Your task to perform on an android device: search for starred emails in the gmail app Image 0: 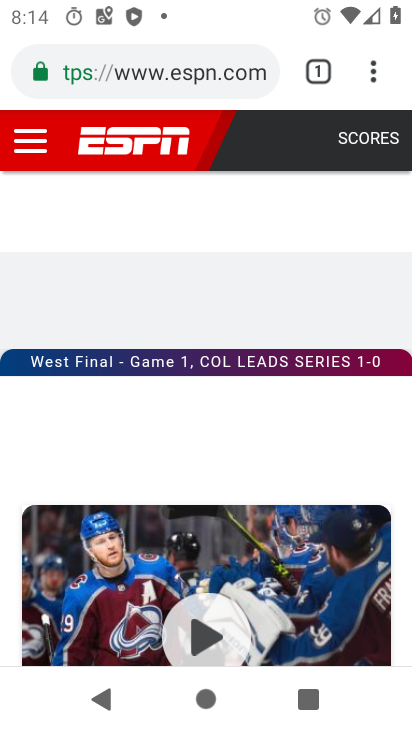
Step 0: press home button
Your task to perform on an android device: search for starred emails in the gmail app Image 1: 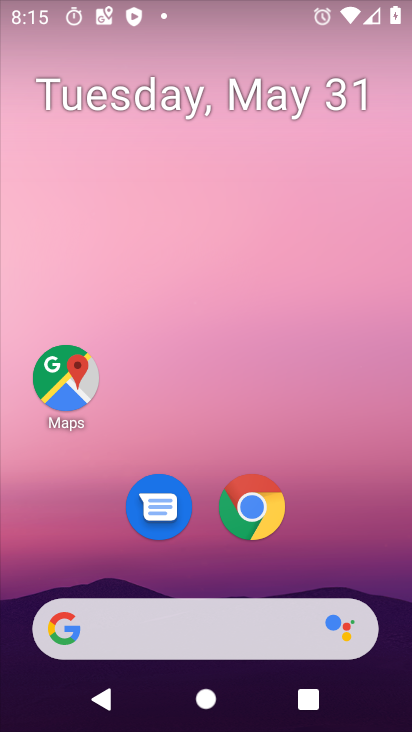
Step 1: drag from (354, 572) to (373, 12)
Your task to perform on an android device: search for starred emails in the gmail app Image 2: 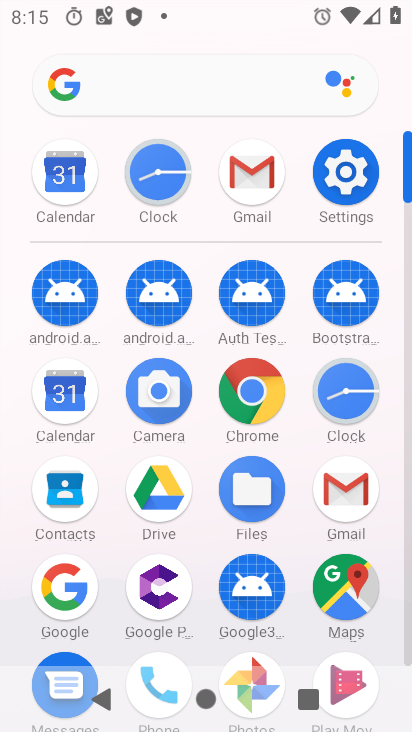
Step 2: click (248, 182)
Your task to perform on an android device: search for starred emails in the gmail app Image 3: 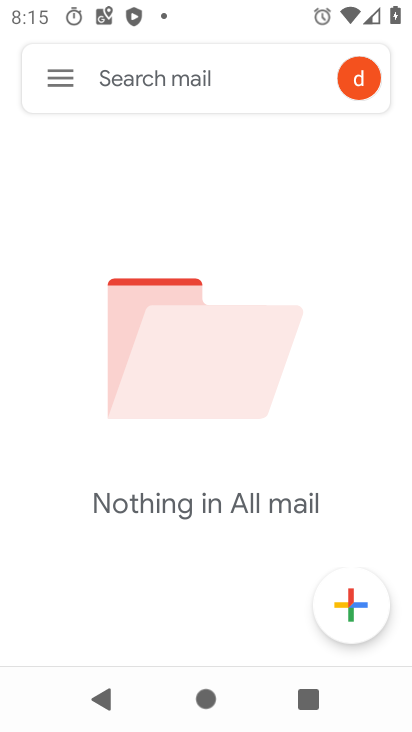
Step 3: click (60, 78)
Your task to perform on an android device: search for starred emails in the gmail app Image 4: 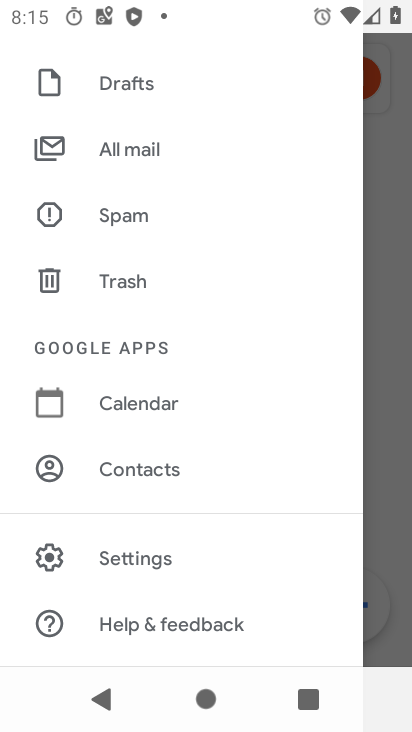
Step 4: drag from (244, 243) to (255, 496)
Your task to perform on an android device: search for starred emails in the gmail app Image 5: 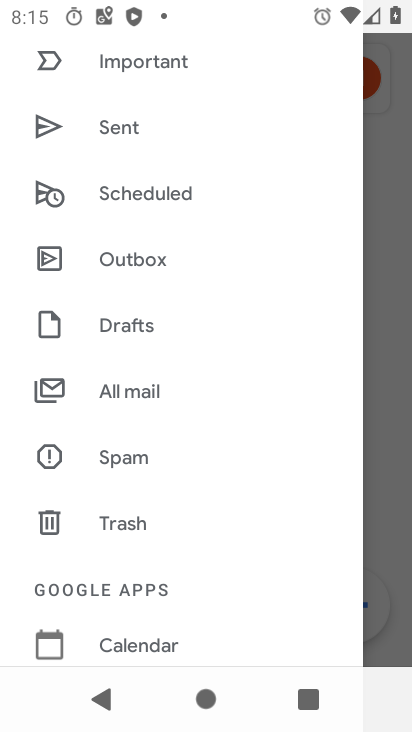
Step 5: drag from (246, 198) to (268, 545)
Your task to perform on an android device: search for starred emails in the gmail app Image 6: 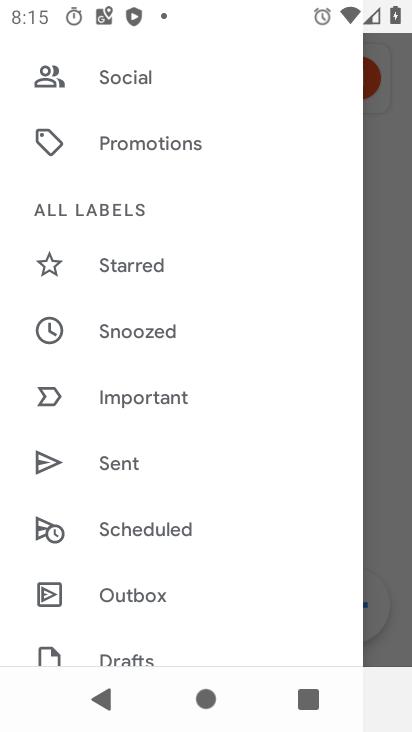
Step 6: click (113, 265)
Your task to perform on an android device: search for starred emails in the gmail app Image 7: 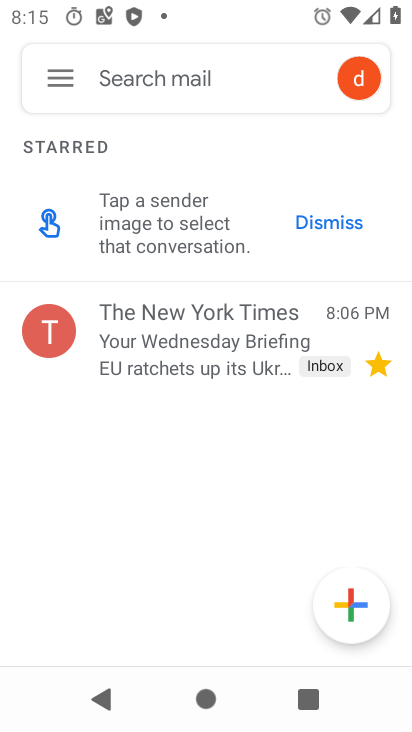
Step 7: task complete